Your task to perform on an android device: turn on improve location accuracy Image 0: 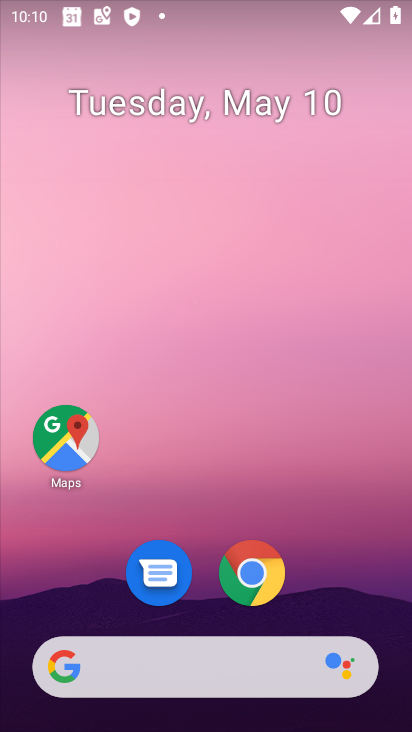
Step 0: drag from (326, 566) to (235, 192)
Your task to perform on an android device: turn on improve location accuracy Image 1: 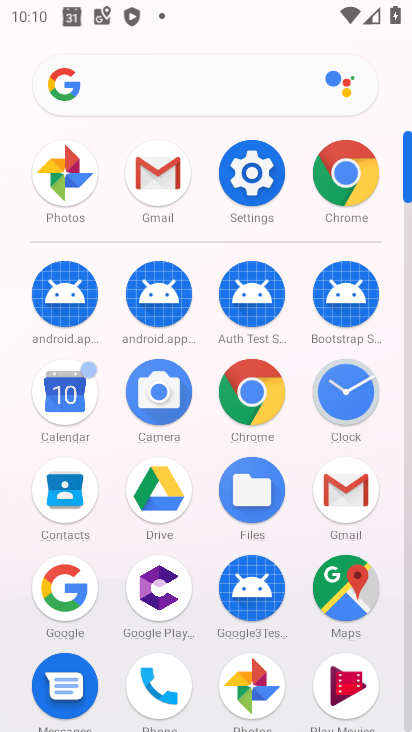
Step 1: click (245, 171)
Your task to perform on an android device: turn on improve location accuracy Image 2: 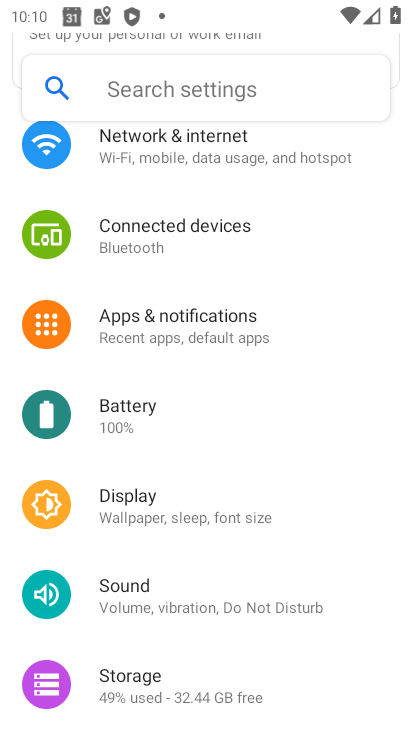
Step 2: drag from (216, 568) to (200, 307)
Your task to perform on an android device: turn on improve location accuracy Image 3: 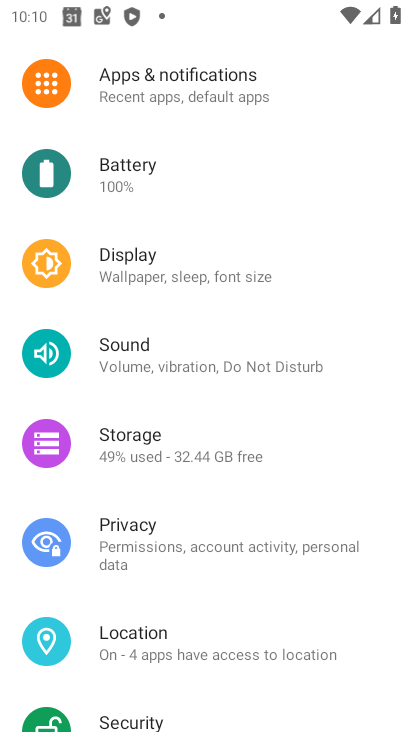
Step 3: click (151, 629)
Your task to perform on an android device: turn on improve location accuracy Image 4: 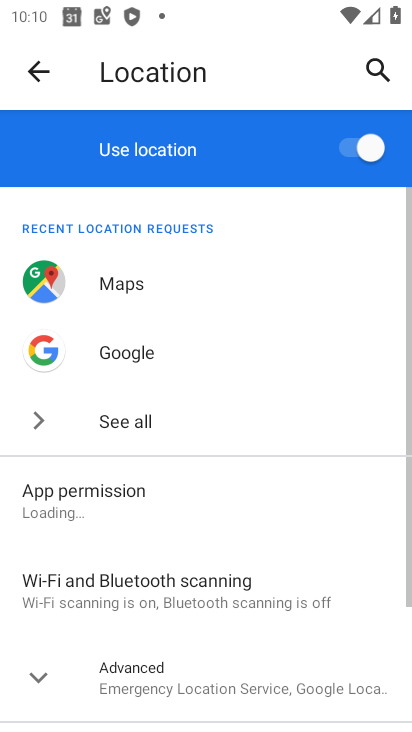
Step 4: drag from (258, 356) to (186, 28)
Your task to perform on an android device: turn on improve location accuracy Image 5: 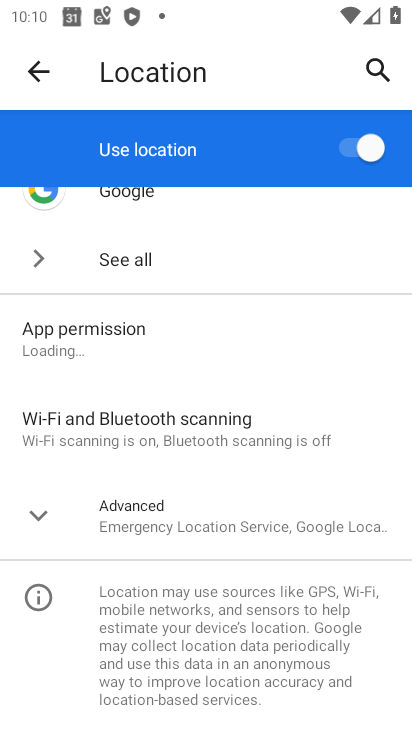
Step 5: click (67, 492)
Your task to perform on an android device: turn on improve location accuracy Image 6: 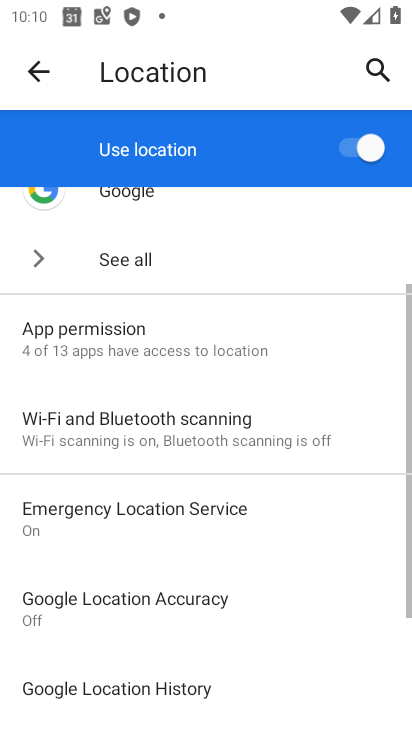
Step 6: drag from (304, 403) to (252, 226)
Your task to perform on an android device: turn on improve location accuracy Image 7: 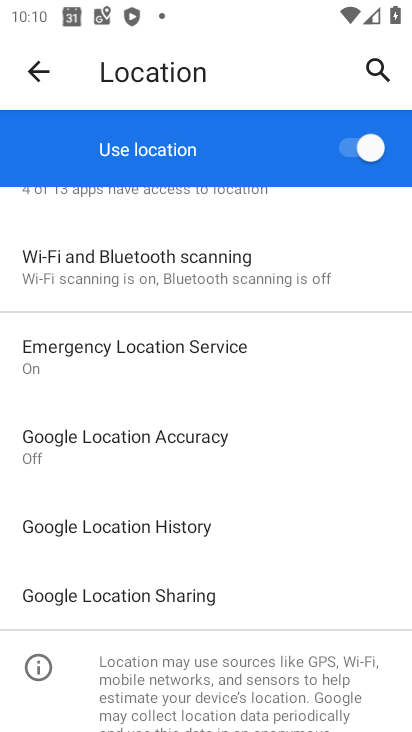
Step 7: click (174, 438)
Your task to perform on an android device: turn on improve location accuracy Image 8: 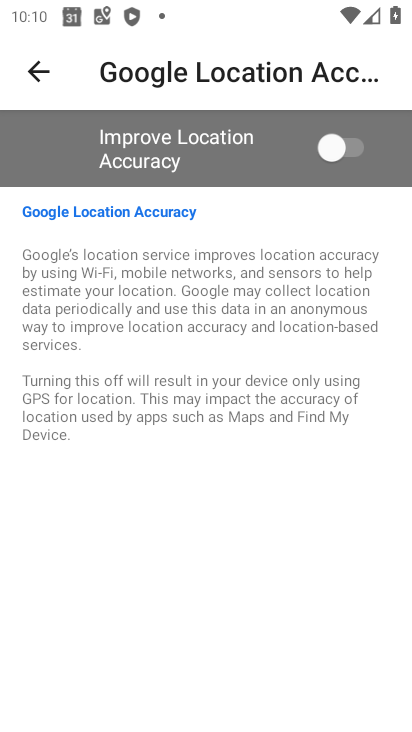
Step 8: click (333, 137)
Your task to perform on an android device: turn on improve location accuracy Image 9: 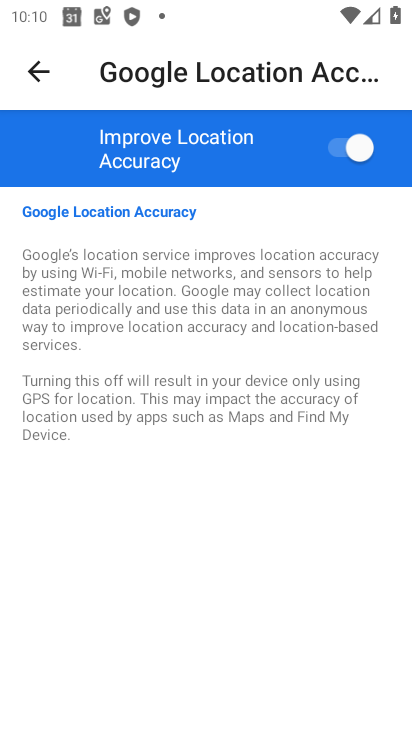
Step 9: task complete